Your task to perform on an android device: Search for sushi restaurants on Maps Image 0: 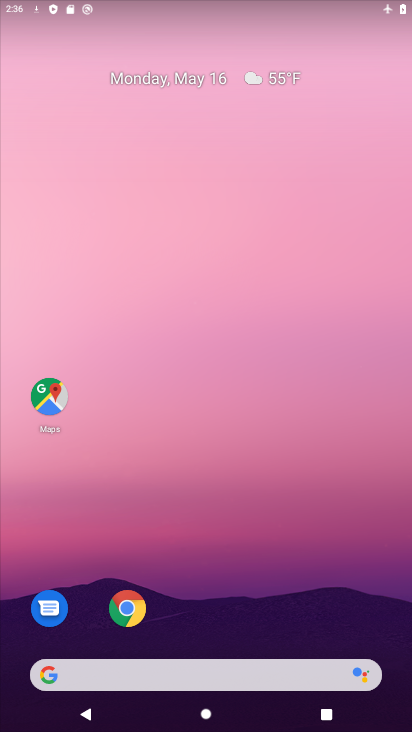
Step 0: click (55, 392)
Your task to perform on an android device: Search for sushi restaurants on Maps Image 1: 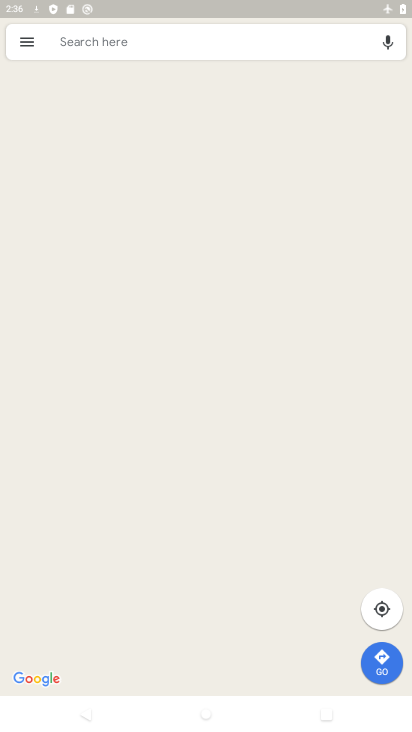
Step 1: click (174, 42)
Your task to perform on an android device: Search for sushi restaurants on Maps Image 2: 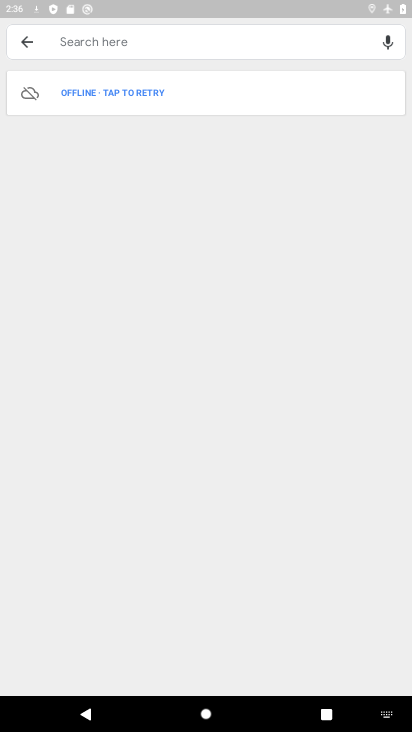
Step 2: type "sushi restaurants"
Your task to perform on an android device: Search for sushi restaurants on Maps Image 3: 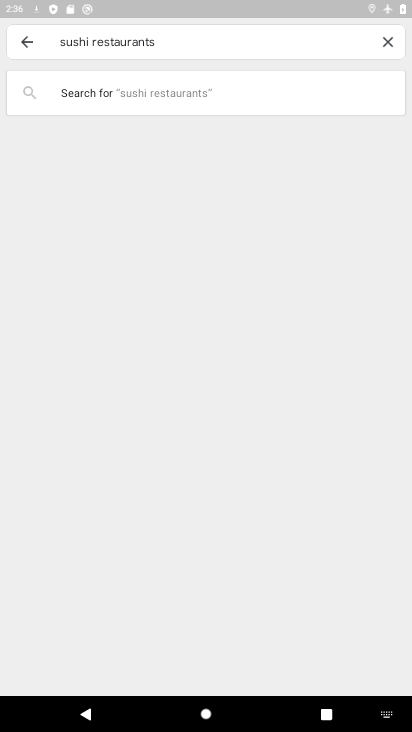
Step 3: task complete